Your task to perform on an android device: delete location history Image 0: 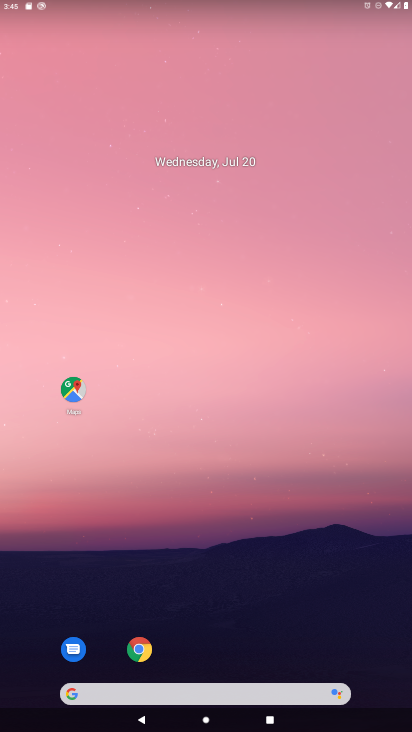
Step 0: drag from (187, 690) to (288, 46)
Your task to perform on an android device: delete location history Image 1: 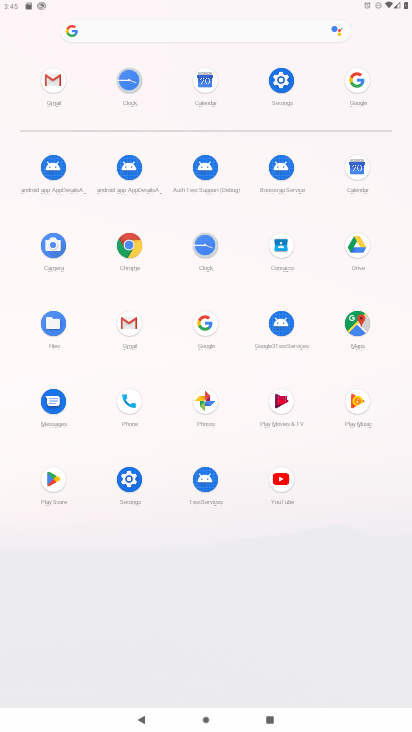
Step 1: click (358, 325)
Your task to perform on an android device: delete location history Image 2: 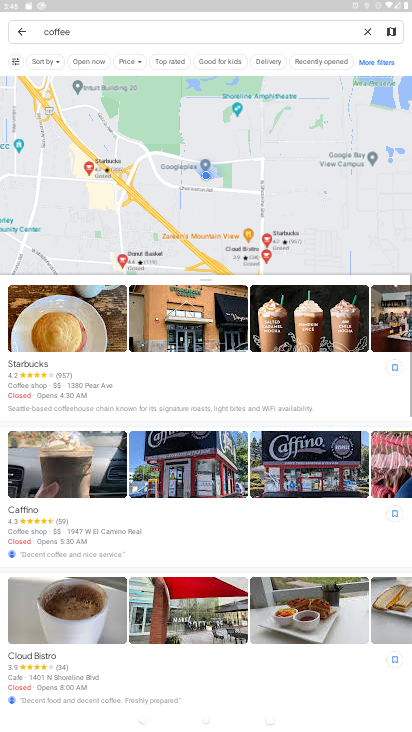
Step 2: press back button
Your task to perform on an android device: delete location history Image 3: 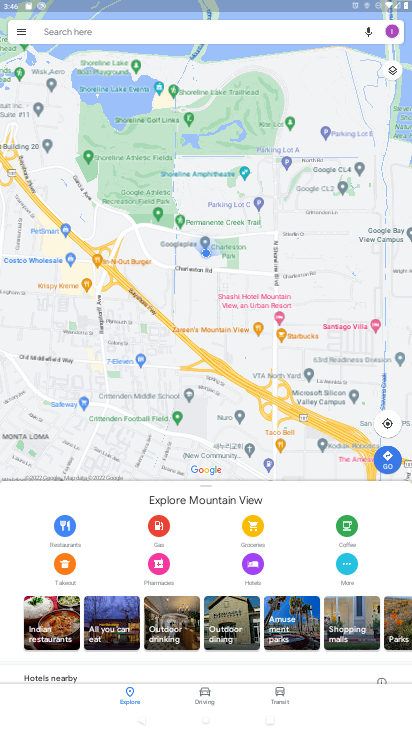
Step 3: click (22, 33)
Your task to perform on an android device: delete location history Image 4: 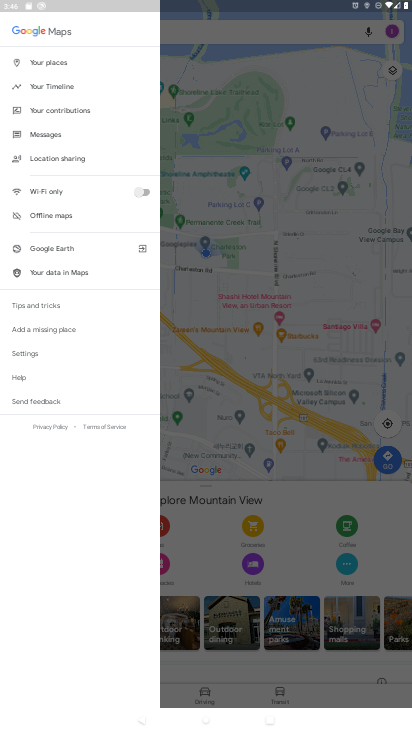
Step 4: click (34, 355)
Your task to perform on an android device: delete location history Image 5: 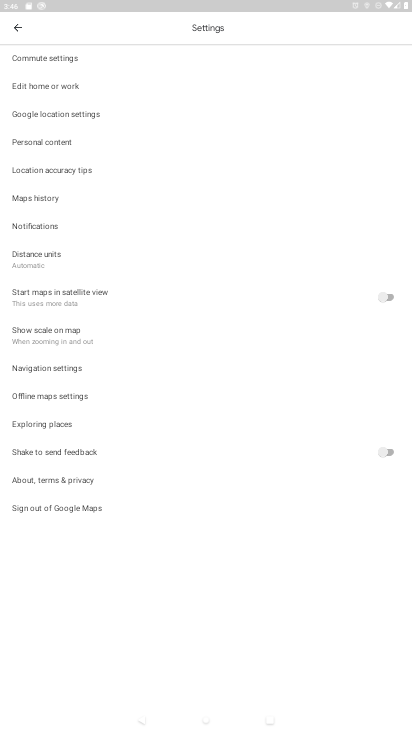
Step 5: click (57, 142)
Your task to perform on an android device: delete location history Image 6: 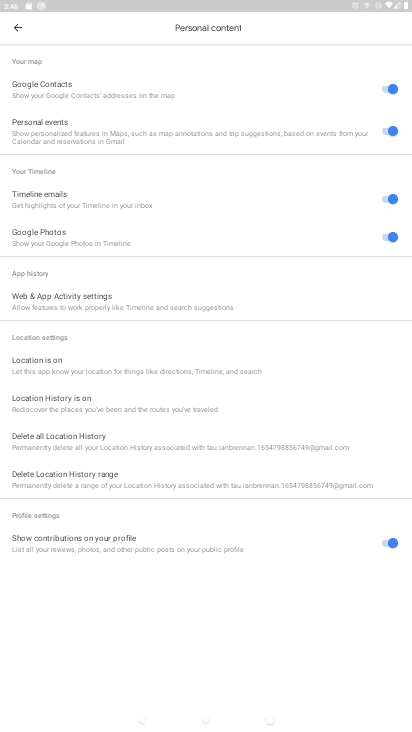
Step 6: click (76, 439)
Your task to perform on an android device: delete location history Image 7: 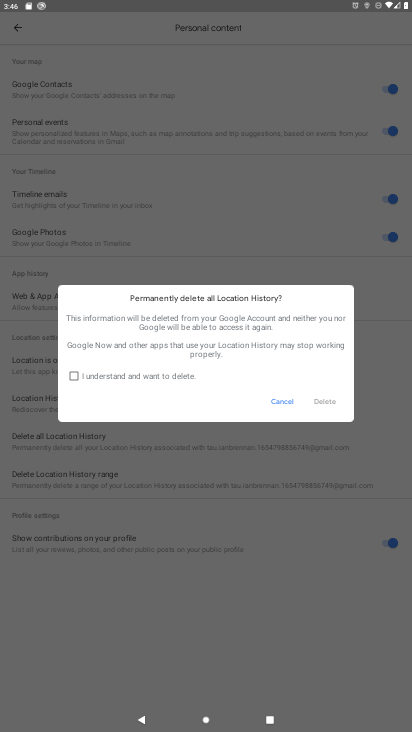
Step 7: click (72, 378)
Your task to perform on an android device: delete location history Image 8: 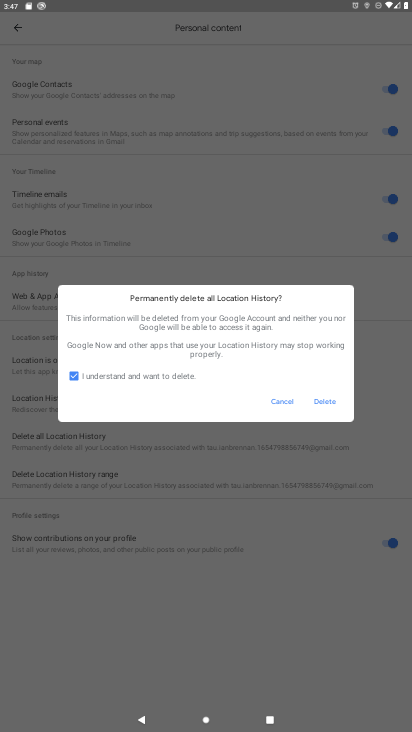
Step 8: click (328, 401)
Your task to perform on an android device: delete location history Image 9: 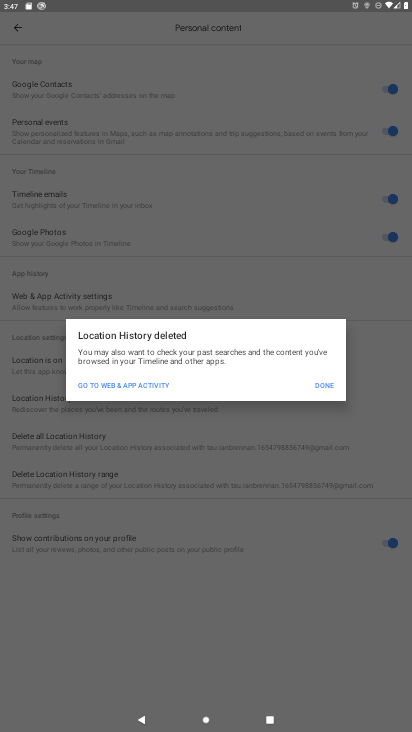
Step 9: click (325, 384)
Your task to perform on an android device: delete location history Image 10: 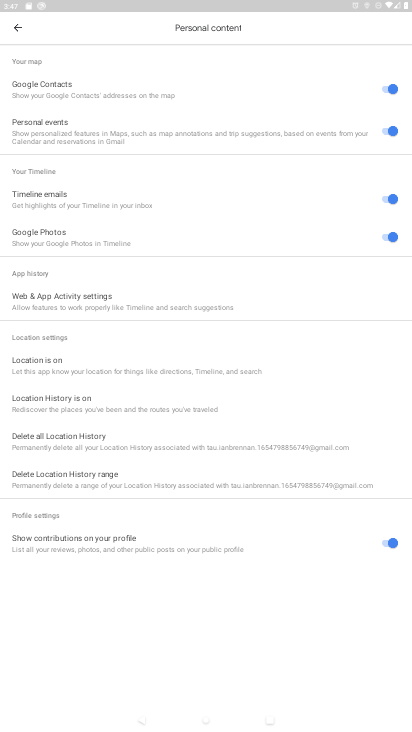
Step 10: task complete